Your task to perform on an android device: What's on my calendar today? Image 0: 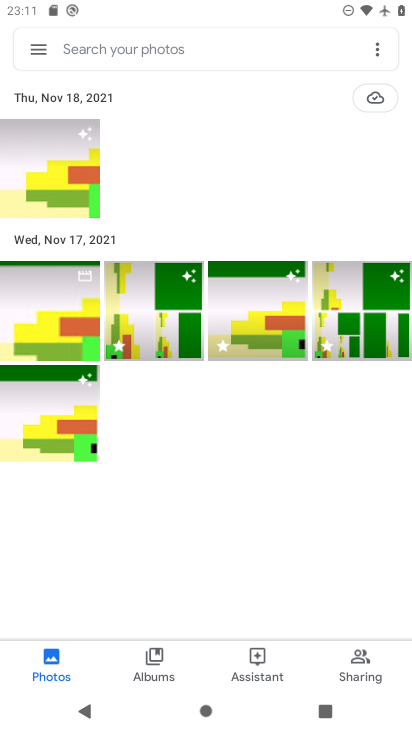
Step 0: press home button
Your task to perform on an android device: What's on my calendar today? Image 1: 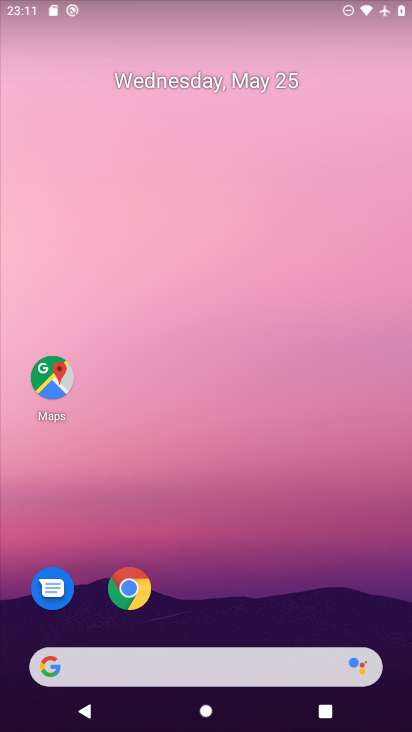
Step 1: drag from (186, 587) to (204, 137)
Your task to perform on an android device: What's on my calendar today? Image 2: 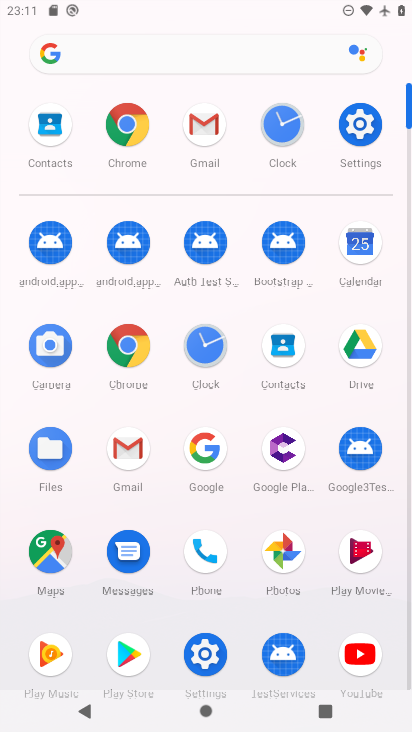
Step 2: click (347, 248)
Your task to perform on an android device: What's on my calendar today? Image 3: 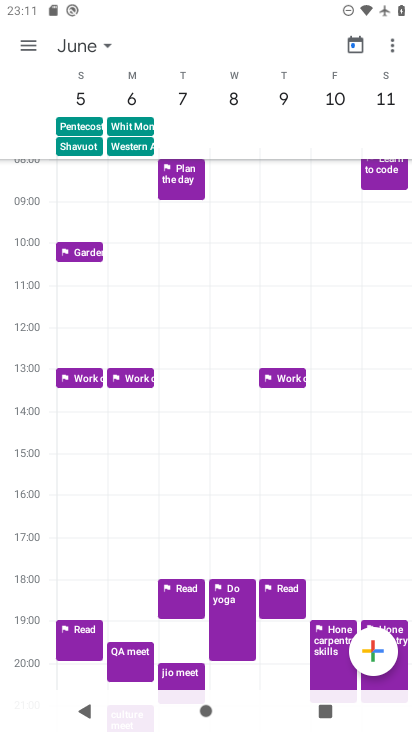
Step 3: click (78, 51)
Your task to perform on an android device: What's on my calendar today? Image 4: 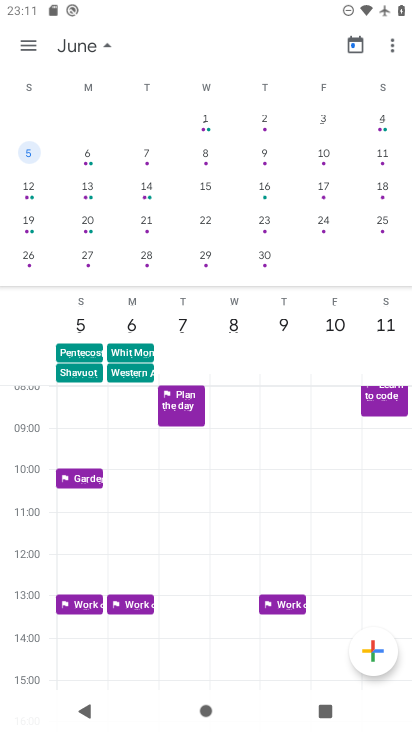
Step 4: drag from (58, 232) to (312, 203)
Your task to perform on an android device: What's on my calendar today? Image 5: 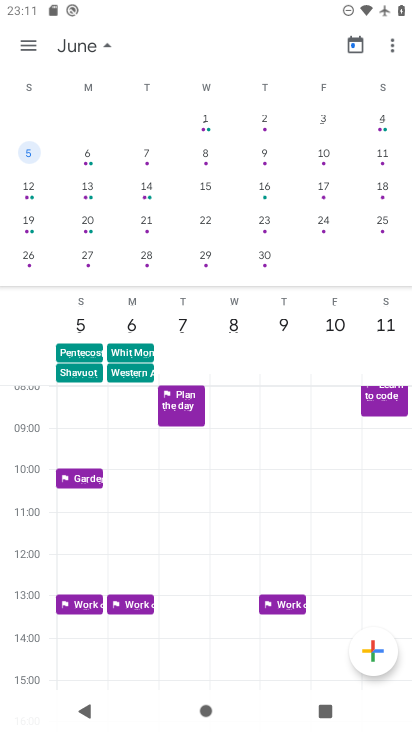
Step 5: click (173, 215)
Your task to perform on an android device: What's on my calendar today? Image 6: 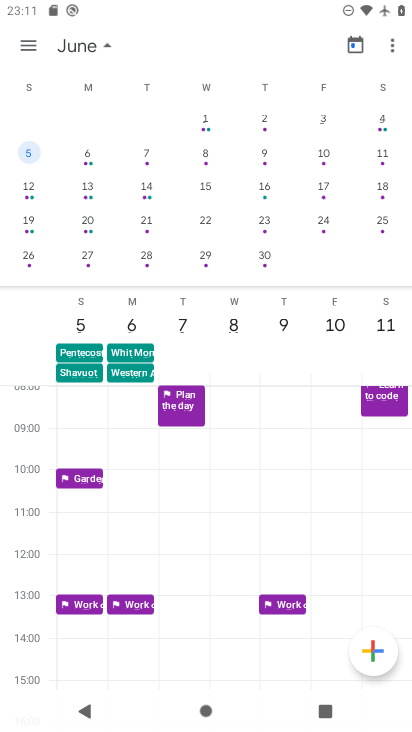
Step 6: drag from (173, 214) to (406, 222)
Your task to perform on an android device: What's on my calendar today? Image 7: 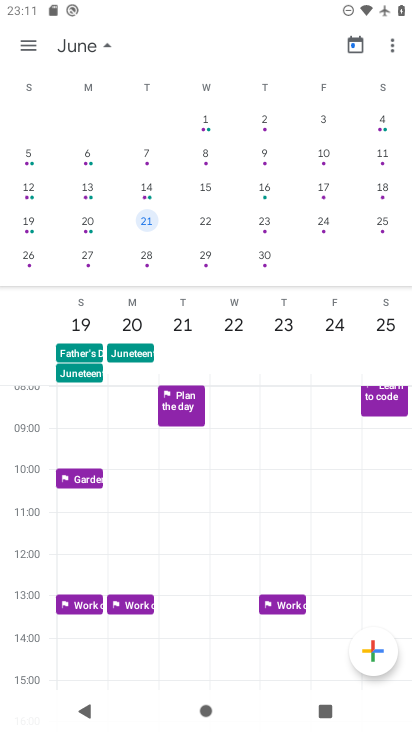
Step 7: drag from (42, 223) to (402, 196)
Your task to perform on an android device: What's on my calendar today? Image 8: 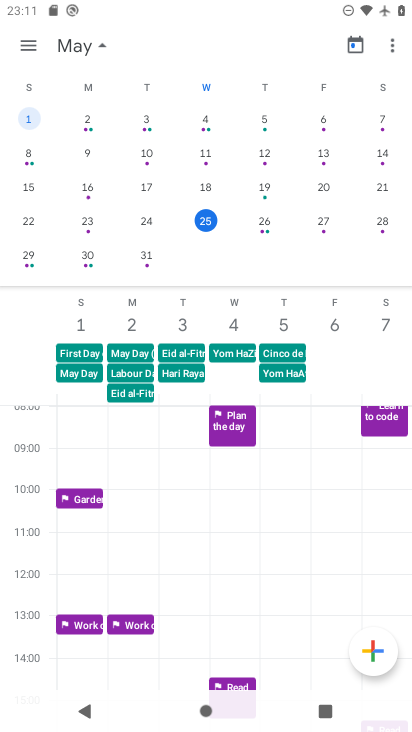
Step 8: click (194, 211)
Your task to perform on an android device: What's on my calendar today? Image 9: 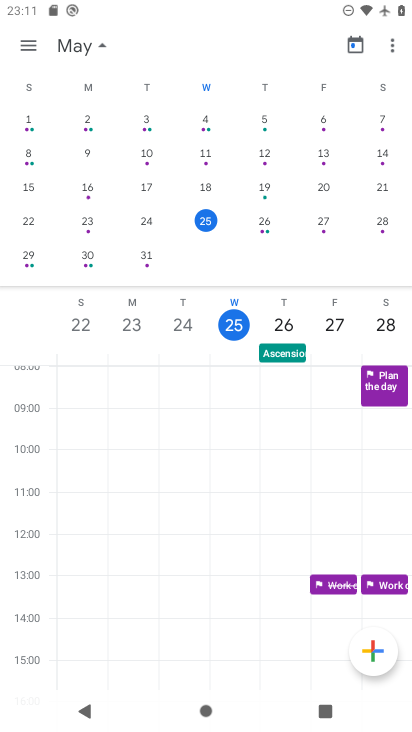
Step 9: task complete